Your task to perform on an android device: Search for Mexican restaurants on Maps Image 0: 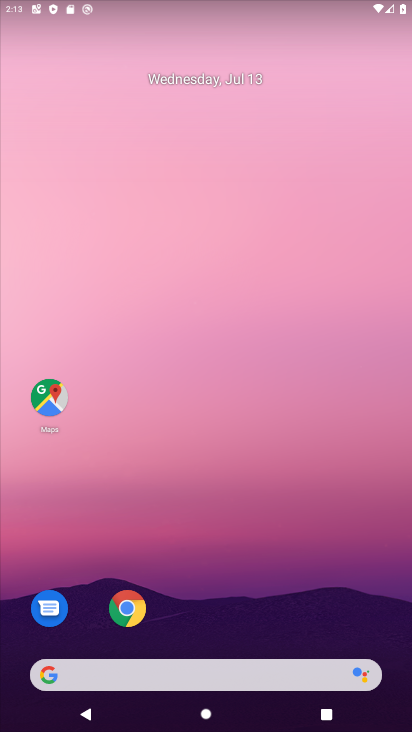
Step 0: click (48, 401)
Your task to perform on an android device: Search for Mexican restaurants on Maps Image 1: 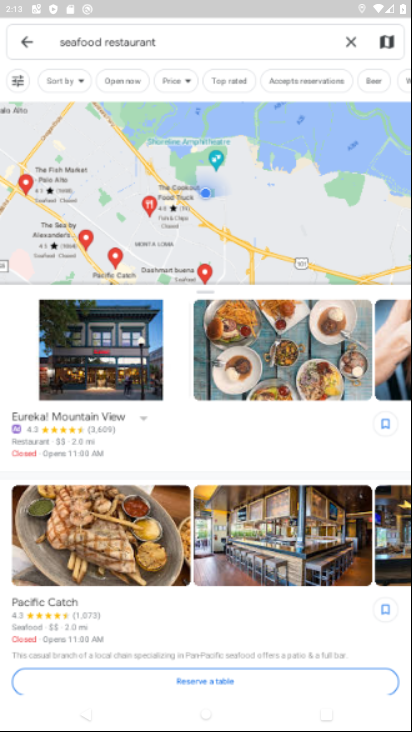
Step 1: click (25, 43)
Your task to perform on an android device: Search for Mexican restaurants on Maps Image 2: 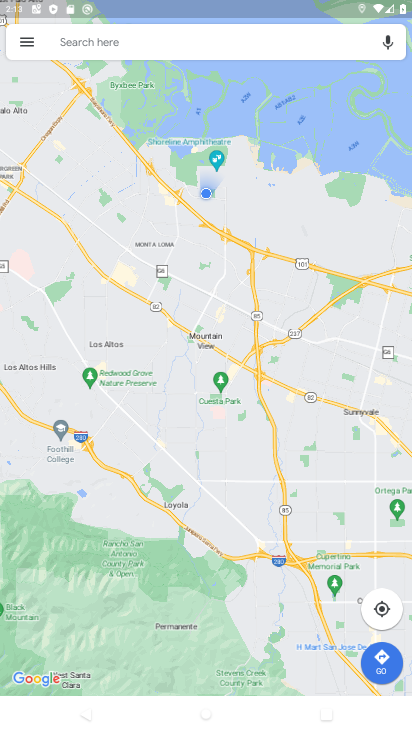
Step 2: click (270, 46)
Your task to perform on an android device: Search for Mexican restaurants on Maps Image 3: 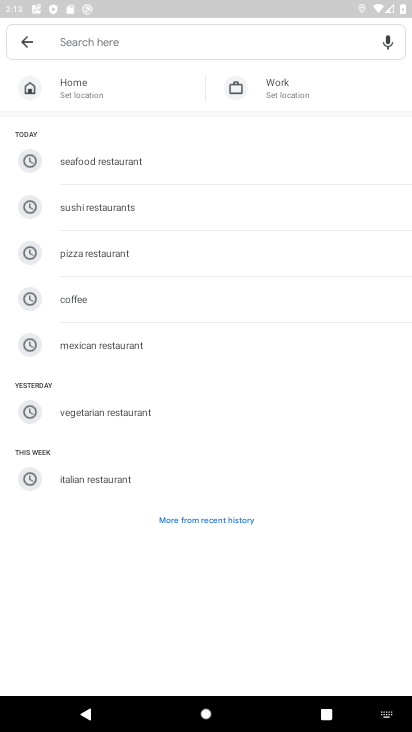
Step 3: click (120, 344)
Your task to perform on an android device: Search for Mexican restaurants on Maps Image 4: 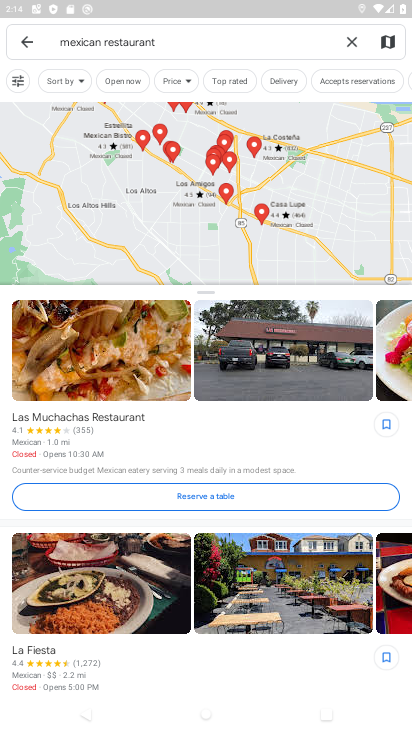
Step 4: task complete